Your task to perform on an android device: visit the assistant section in the google photos Image 0: 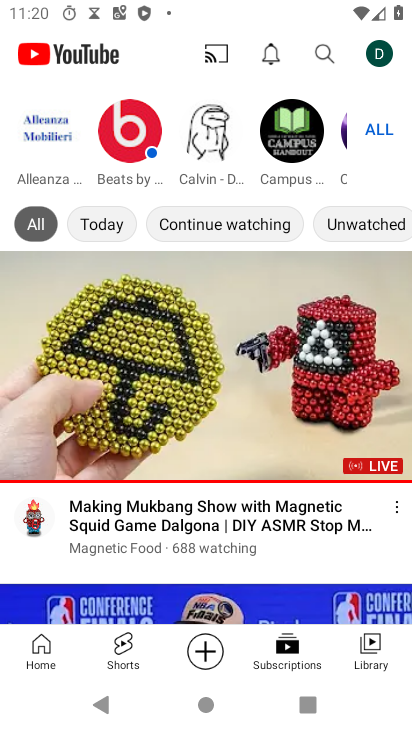
Step 0: press home button
Your task to perform on an android device: visit the assistant section in the google photos Image 1: 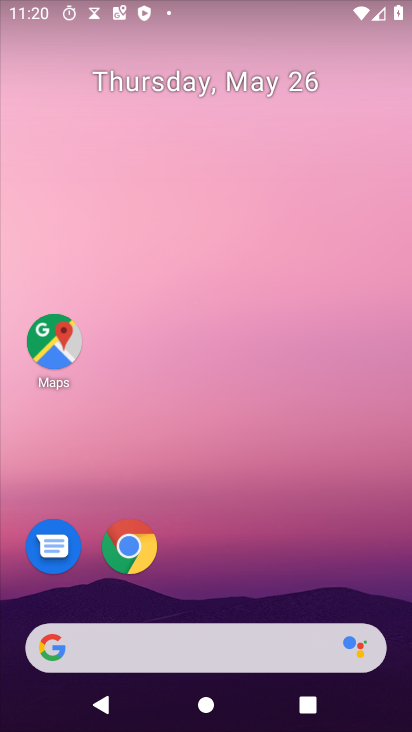
Step 1: drag from (333, 575) to (285, 172)
Your task to perform on an android device: visit the assistant section in the google photos Image 2: 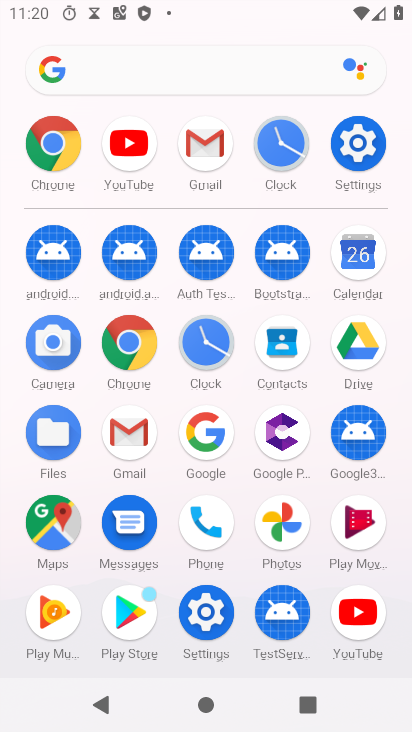
Step 2: click (261, 538)
Your task to perform on an android device: visit the assistant section in the google photos Image 3: 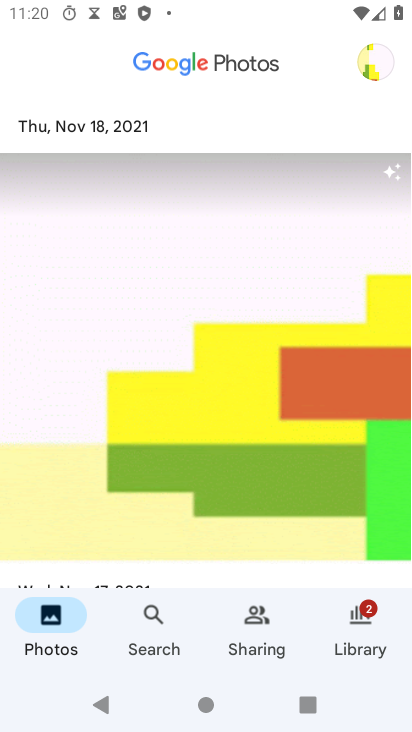
Step 3: click (377, 70)
Your task to perform on an android device: visit the assistant section in the google photos Image 4: 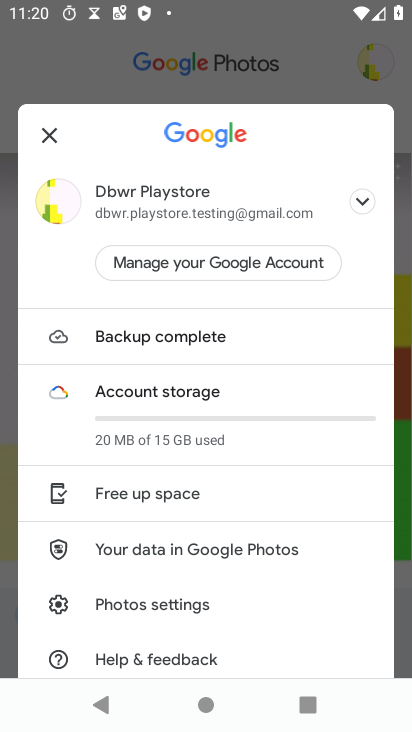
Step 4: drag from (299, 589) to (323, 322)
Your task to perform on an android device: visit the assistant section in the google photos Image 5: 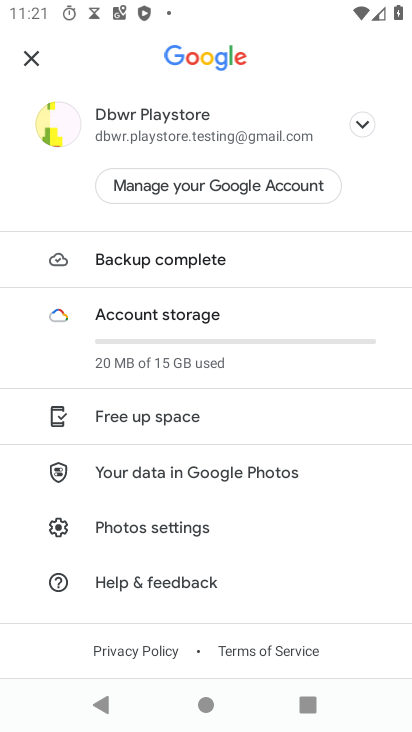
Step 5: drag from (335, 589) to (354, 328)
Your task to perform on an android device: visit the assistant section in the google photos Image 6: 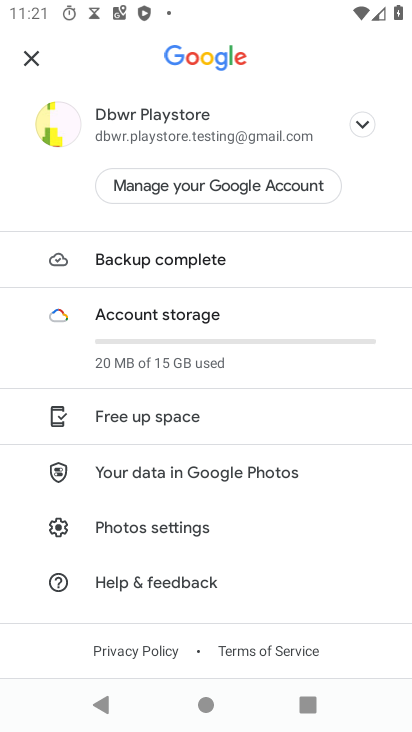
Step 6: click (9, 56)
Your task to perform on an android device: visit the assistant section in the google photos Image 7: 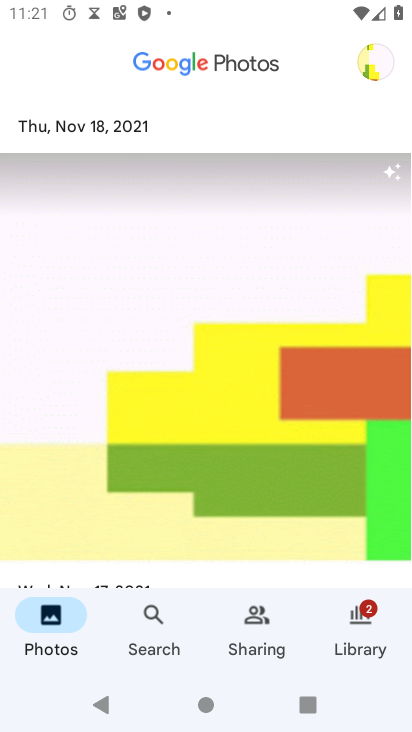
Step 7: task complete